Your task to perform on an android device: Go to calendar. Show me events next week Image 0: 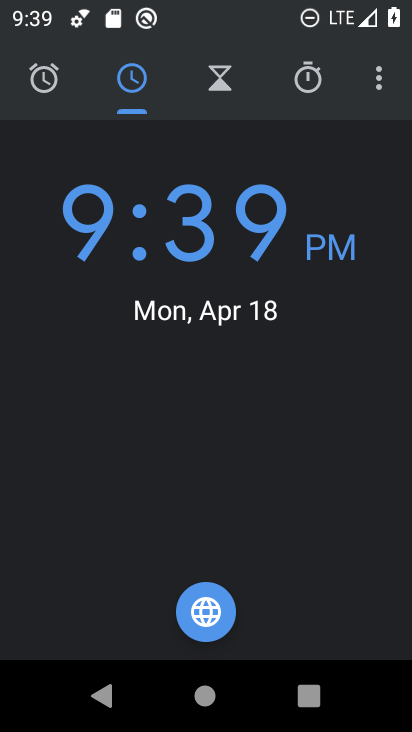
Step 0: press home button
Your task to perform on an android device: Go to calendar. Show me events next week Image 1: 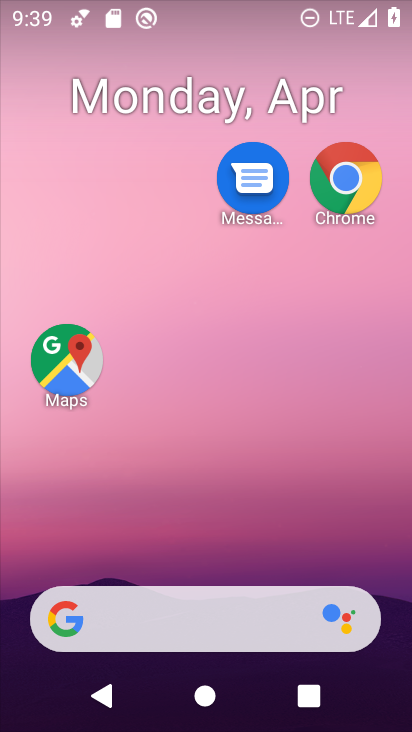
Step 1: drag from (239, 452) to (294, 122)
Your task to perform on an android device: Go to calendar. Show me events next week Image 2: 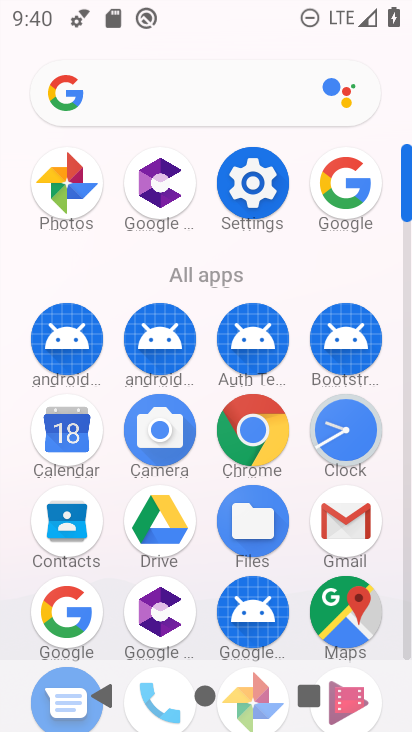
Step 2: drag from (326, 373) to (326, 338)
Your task to perform on an android device: Go to calendar. Show me events next week Image 3: 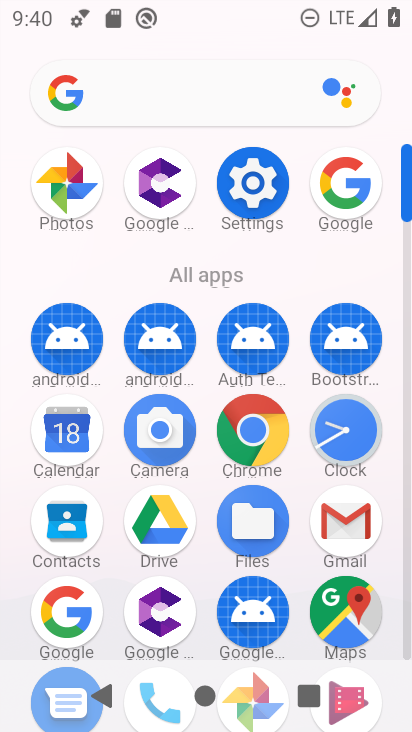
Step 3: click (407, 447)
Your task to perform on an android device: Go to calendar. Show me events next week Image 4: 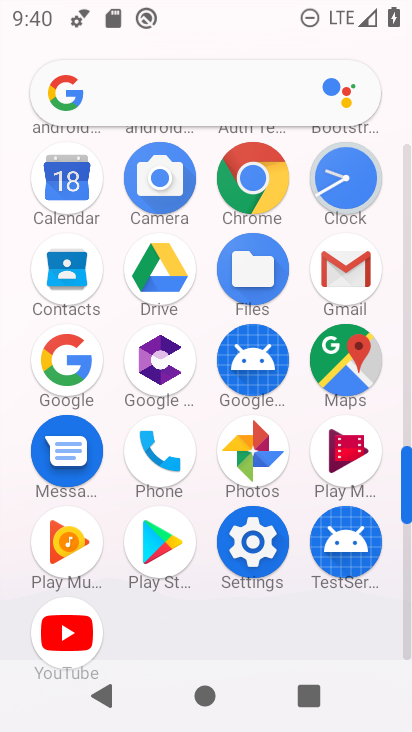
Step 4: click (407, 328)
Your task to perform on an android device: Go to calendar. Show me events next week Image 5: 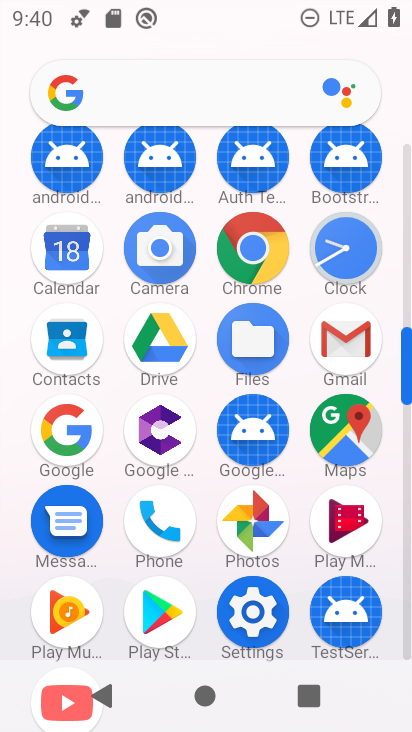
Step 5: click (83, 270)
Your task to perform on an android device: Go to calendar. Show me events next week Image 6: 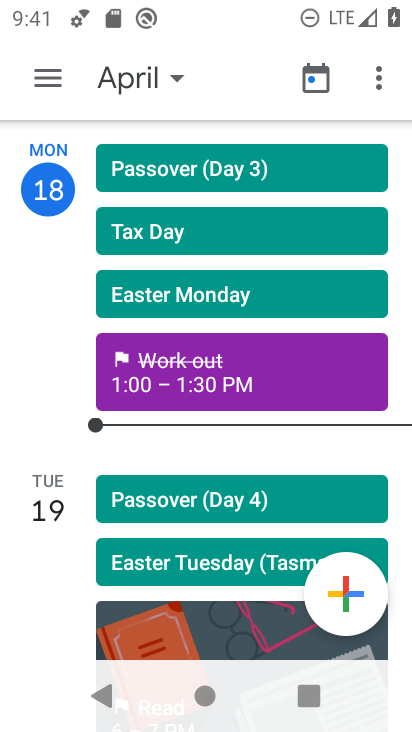
Step 6: click (160, 86)
Your task to perform on an android device: Go to calendar. Show me events next week Image 7: 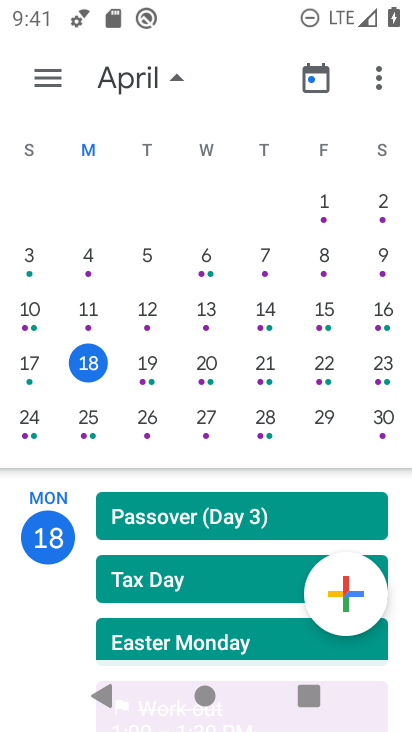
Step 7: click (42, 413)
Your task to perform on an android device: Go to calendar. Show me events next week Image 8: 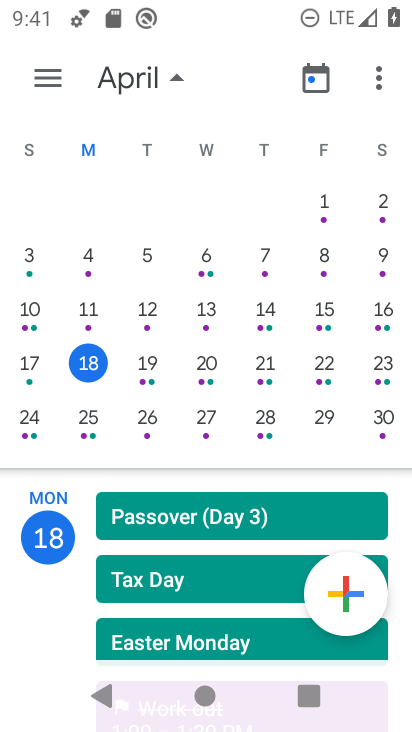
Step 8: click (34, 423)
Your task to perform on an android device: Go to calendar. Show me events next week Image 9: 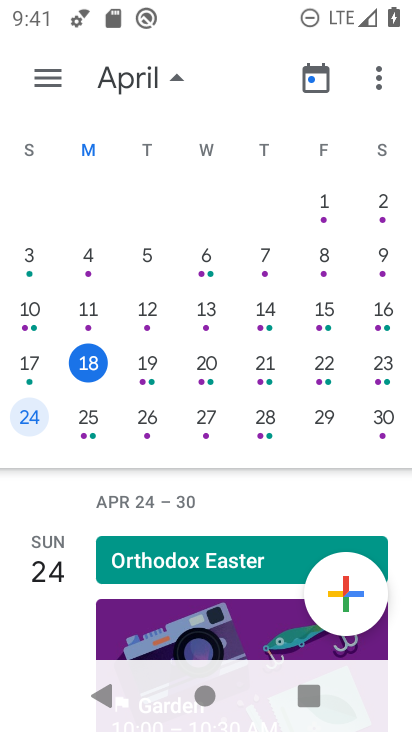
Step 9: task complete